Your task to perform on an android device: Open calendar and show me the first week of next month Image 0: 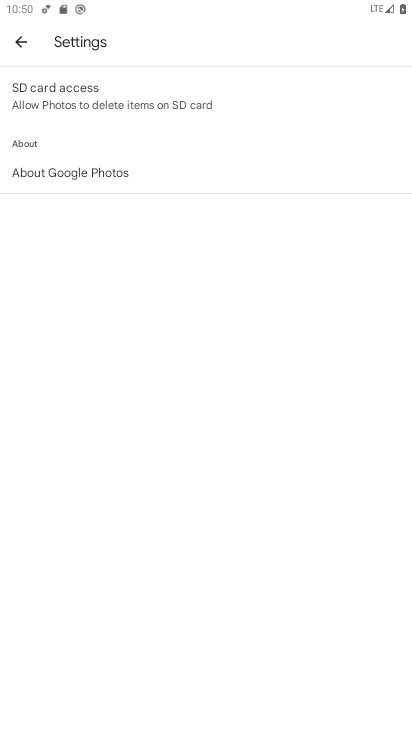
Step 0: press home button
Your task to perform on an android device: Open calendar and show me the first week of next month Image 1: 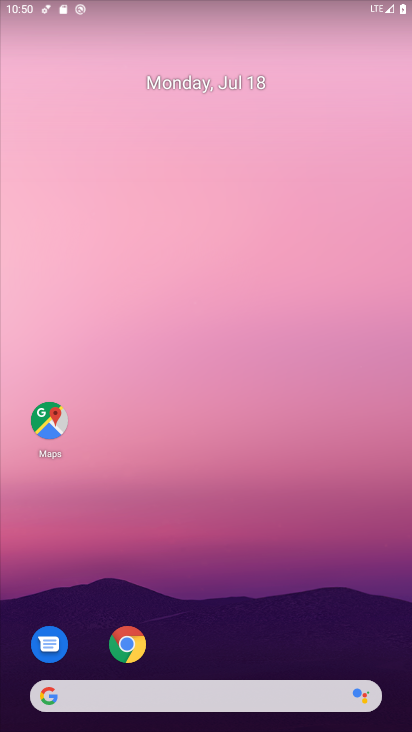
Step 1: drag from (332, 622) to (385, 138)
Your task to perform on an android device: Open calendar and show me the first week of next month Image 2: 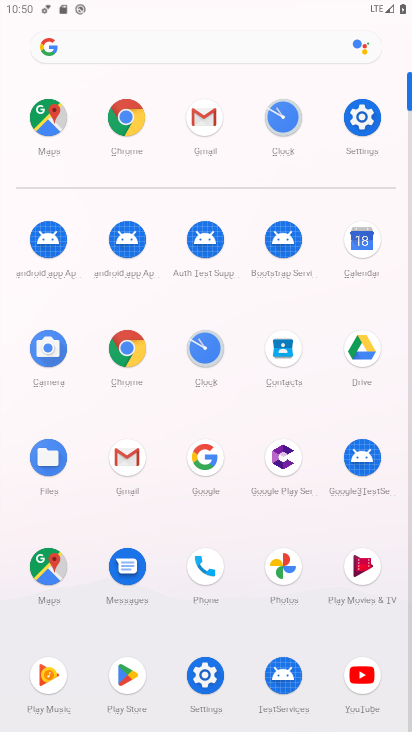
Step 2: click (365, 250)
Your task to perform on an android device: Open calendar and show me the first week of next month Image 3: 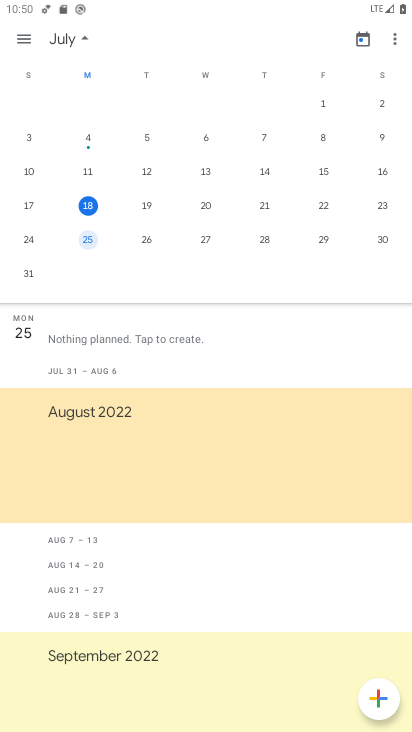
Step 3: drag from (392, 117) to (29, 94)
Your task to perform on an android device: Open calendar and show me the first week of next month Image 4: 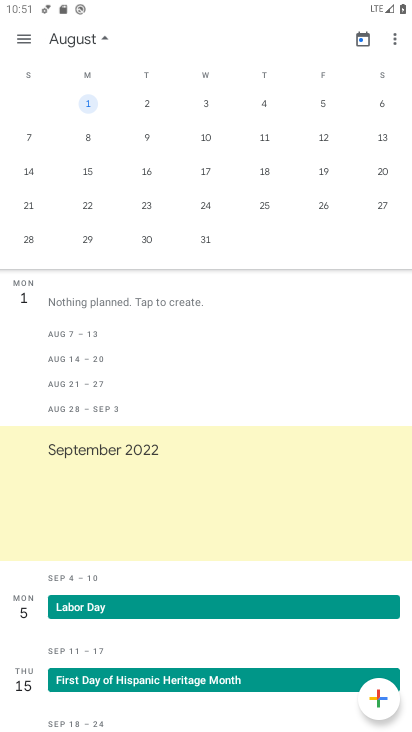
Step 4: click (85, 106)
Your task to perform on an android device: Open calendar and show me the first week of next month Image 5: 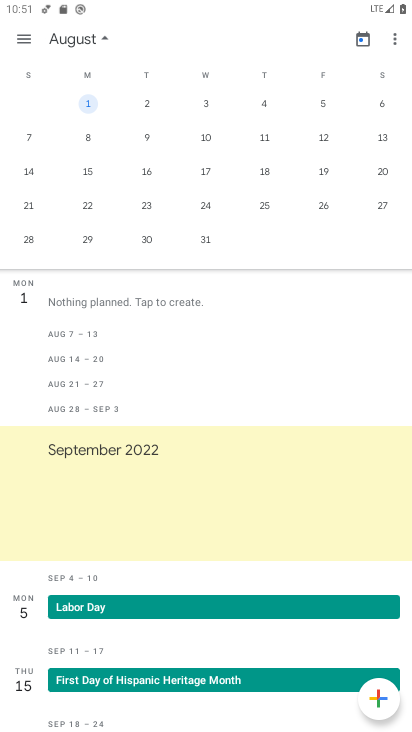
Step 5: task complete